Your task to perform on an android device: open sync settings in chrome Image 0: 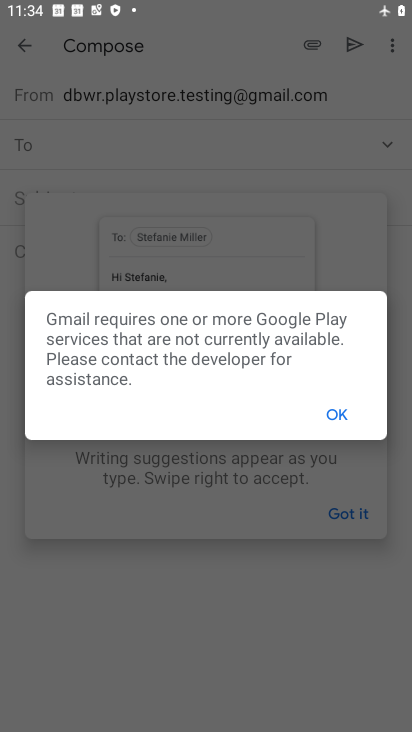
Step 0: press home button
Your task to perform on an android device: open sync settings in chrome Image 1: 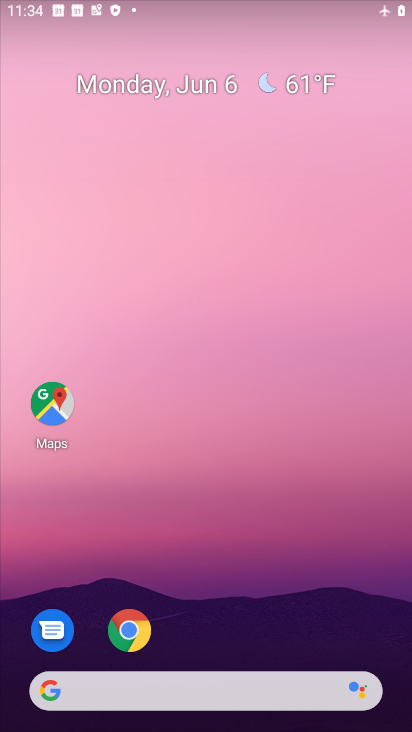
Step 1: drag from (301, 554) to (313, 108)
Your task to perform on an android device: open sync settings in chrome Image 2: 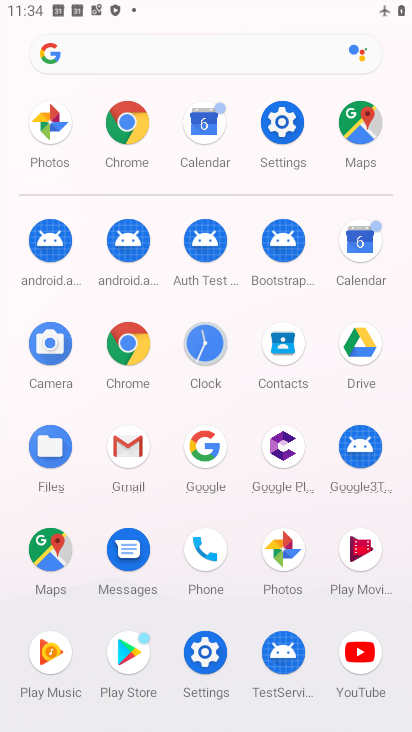
Step 2: click (128, 360)
Your task to perform on an android device: open sync settings in chrome Image 3: 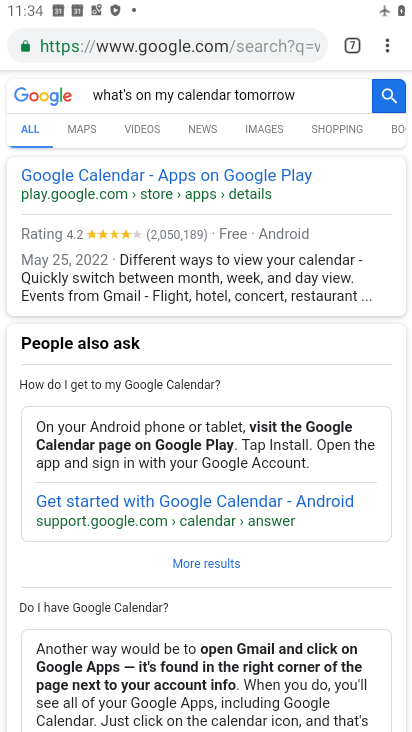
Step 3: drag from (380, 42) to (245, 500)
Your task to perform on an android device: open sync settings in chrome Image 4: 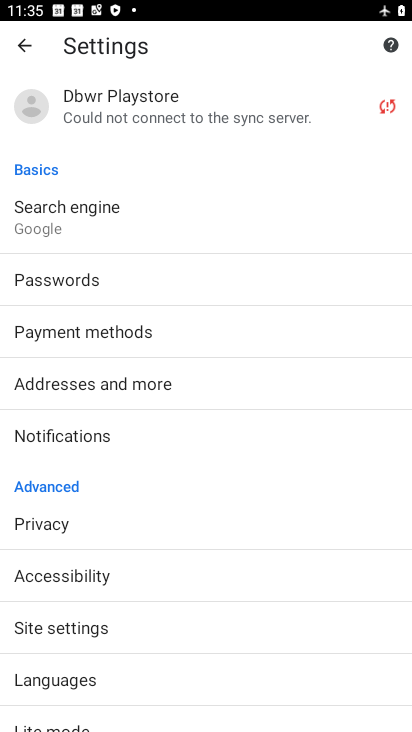
Step 4: drag from (232, 619) to (246, 369)
Your task to perform on an android device: open sync settings in chrome Image 5: 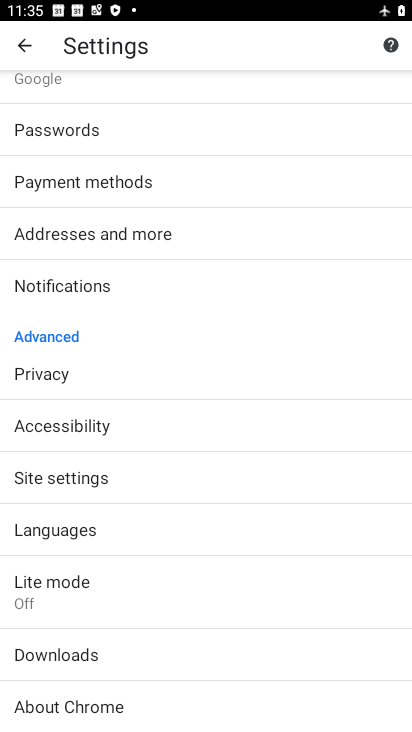
Step 5: drag from (106, 616) to (162, 347)
Your task to perform on an android device: open sync settings in chrome Image 6: 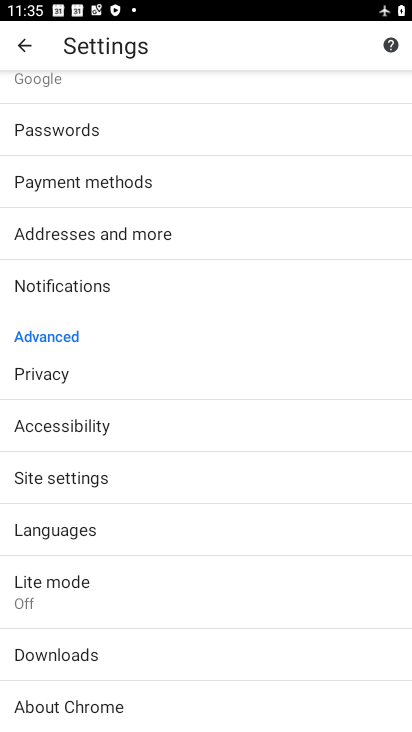
Step 6: click (122, 482)
Your task to perform on an android device: open sync settings in chrome Image 7: 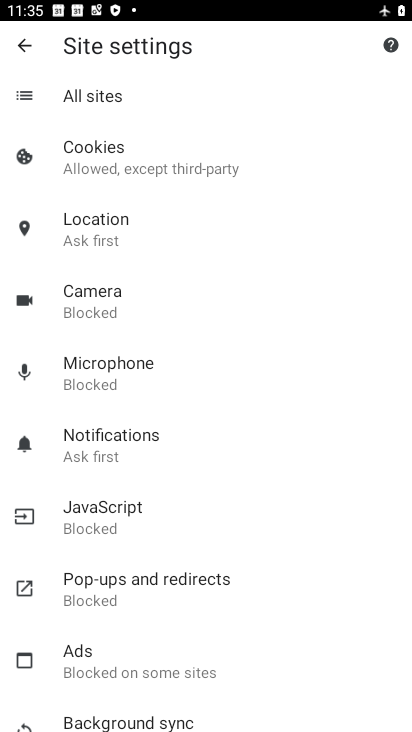
Step 7: drag from (217, 615) to (269, 352)
Your task to perform on an android device: open sync settings in chrome Image 8: 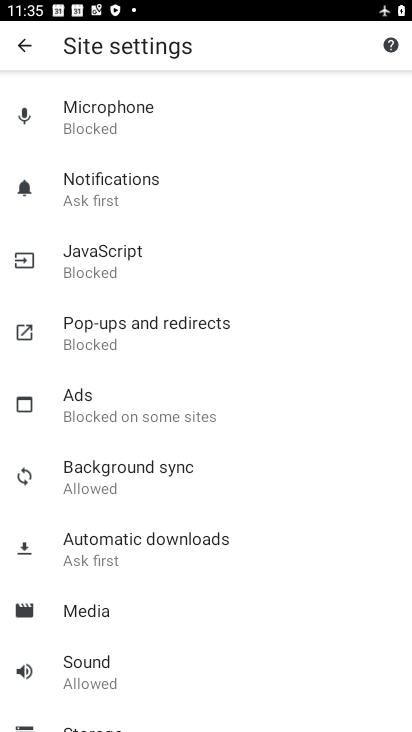
Step 8: click (201, 473)
Your task to perform on an android device: open sync settings in chrome Image 9: 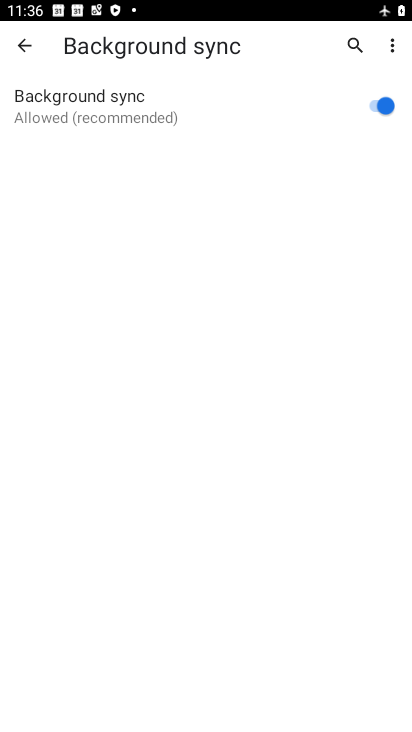
Step 9: task complete